Your task to perform on an android device: turn on showing notifications on the lock screen Image 0: 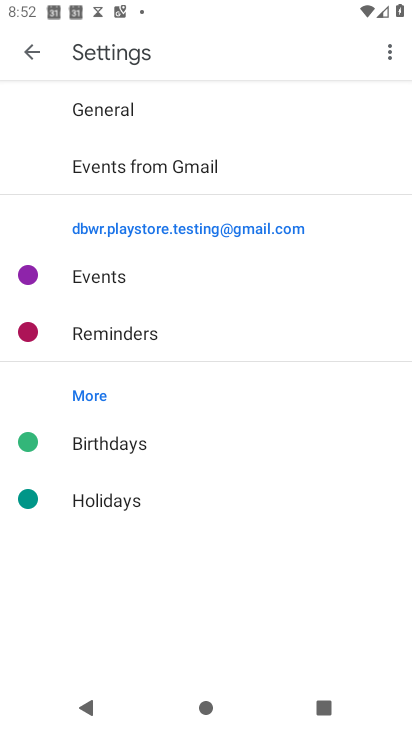
Step 0: press home button
Your task to perform on an android device: turn on showing notifications on the lock screen Image 1: 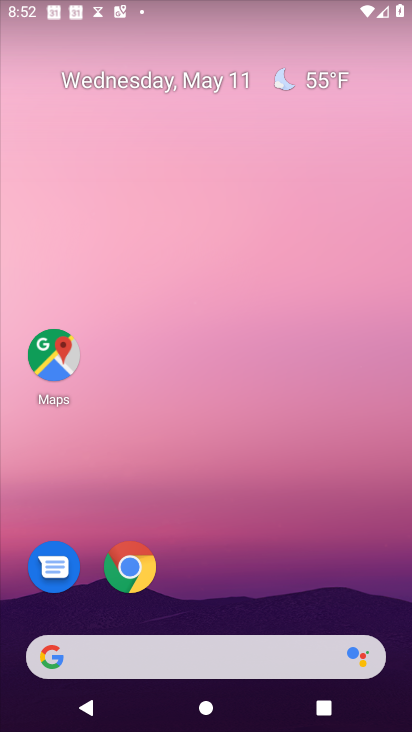
Step 1: drag from (231, 596) to (382, 0)
Your task to perform on an android device: turn on showing notifications on the lock screen Image 2: 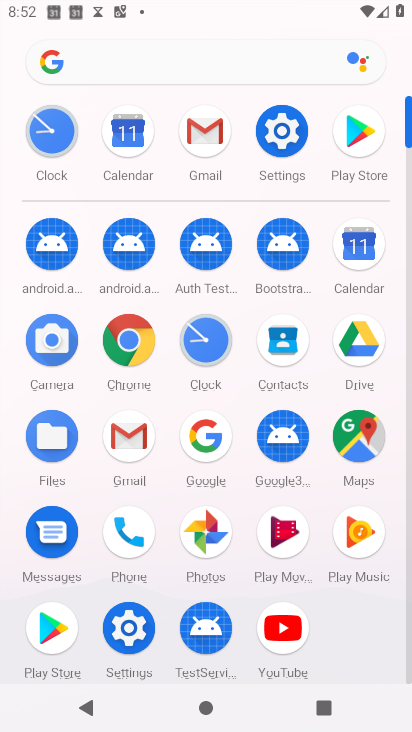
Step 2: click (119, 630)
Your task to perform on an android device: turn on showing notifications on the lock screen Image 3: 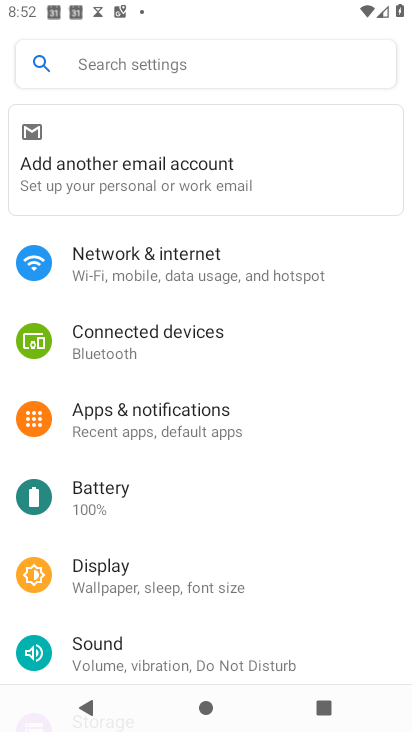
Step 3: click (165, 433)
Your task to perform on an android device: turn on showing notifications on the lock screen Image 4: 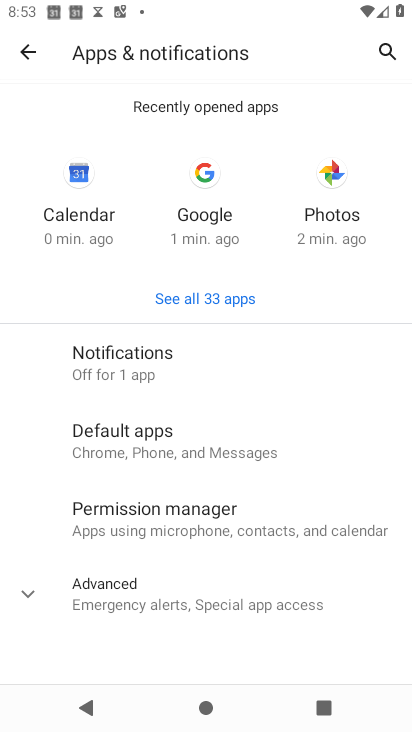
Step 4: click (162, 360)
Your task to perform on an android device: turn on showing notifications on the lock screen Image 5: 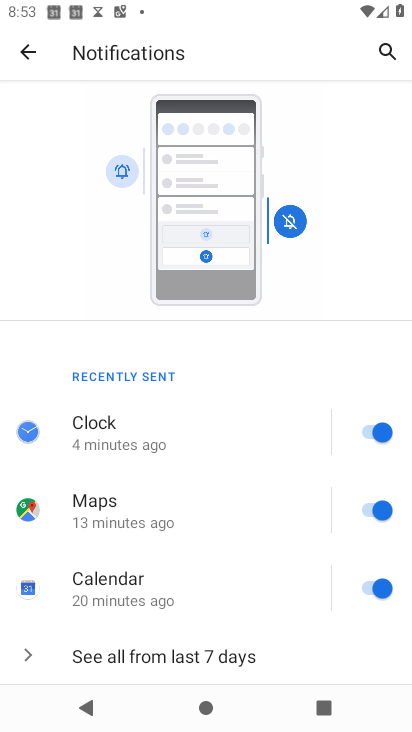
Step 5: drag from (166, 531) to (239, 187)
Your task to perform on an android device: turn on showing notifications on the lock screen Image 6: 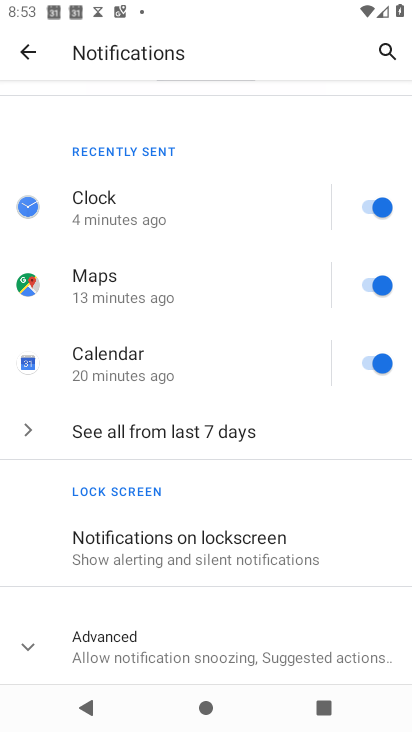
Step 6: click (183, 557)
Your task to perform on an android device: turn on showing notifications on the lock screen Image 7: 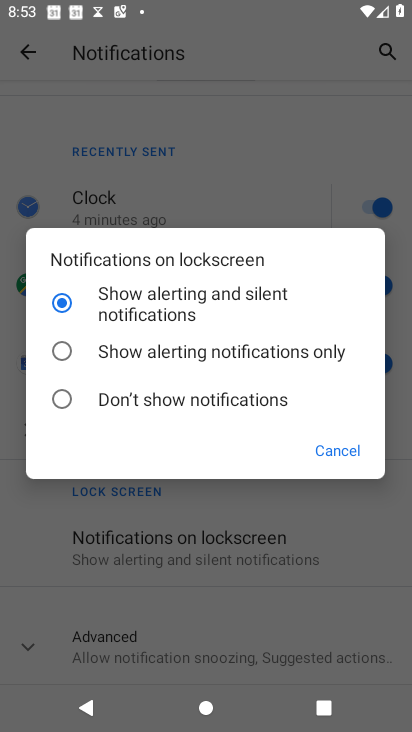
Step 7: click (330, 446)
Your task to perform on an android device: turn on showing notifications on the lock screen Image 8: 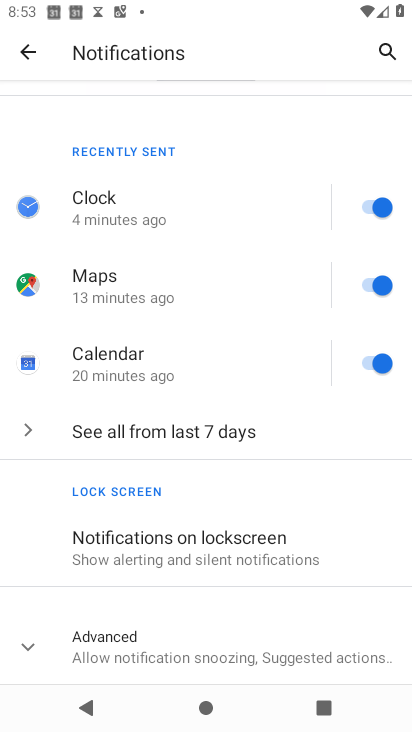
Step 8: task complete